Your task to perform on an android device: check the backup settings in the google photos Image 0: 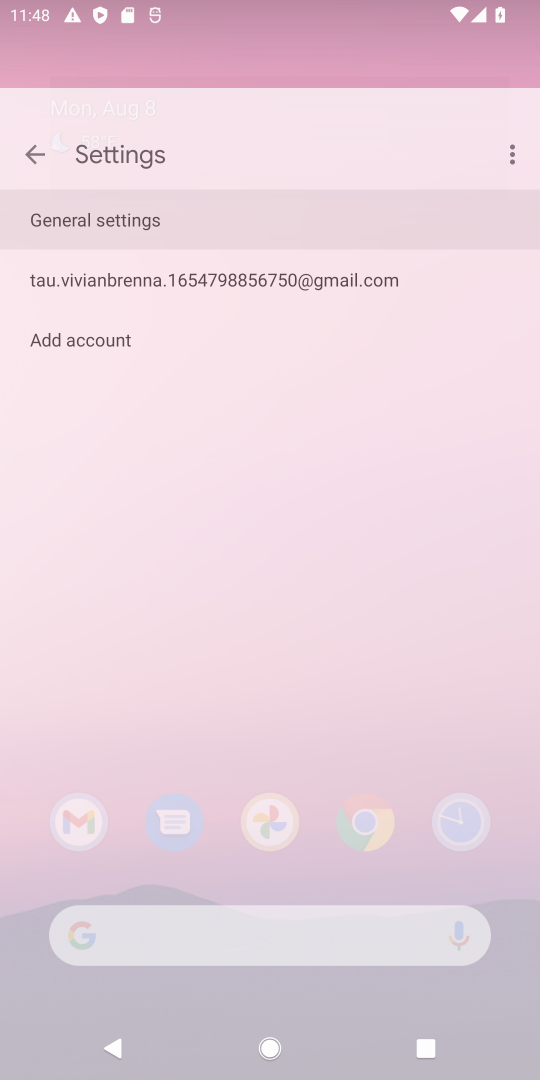
Step 0: press home button
Your task to perform on an android device: check the backup settings in the google photos Image 1: 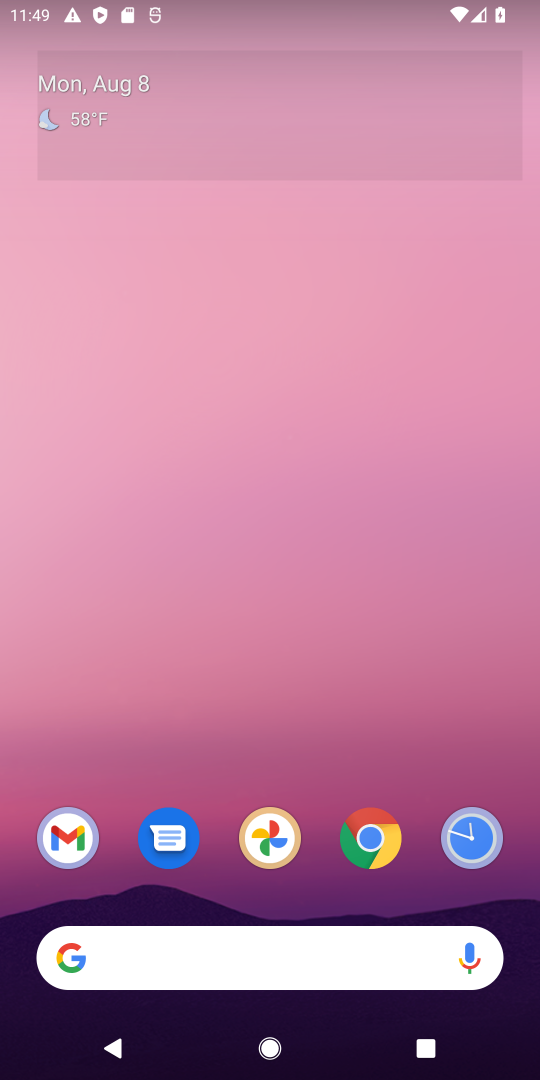
Step 1: click (278, 838)
Your task to perform on an android device: check the backup settings in the google photos Image 2: 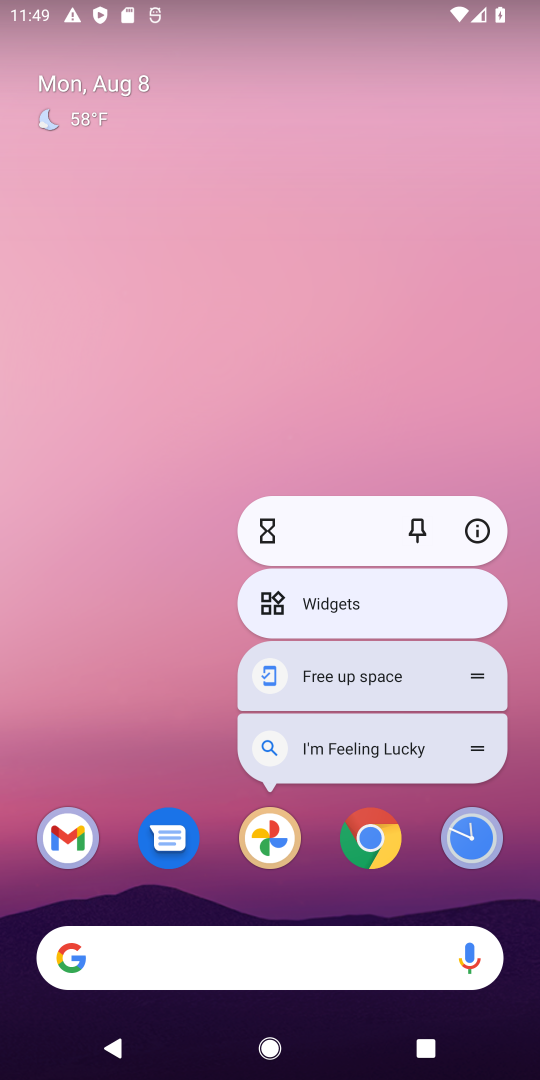
Step 2: click (278, 838)
Your task to perform on an android device: check the backup settings in the google photos Image 3: 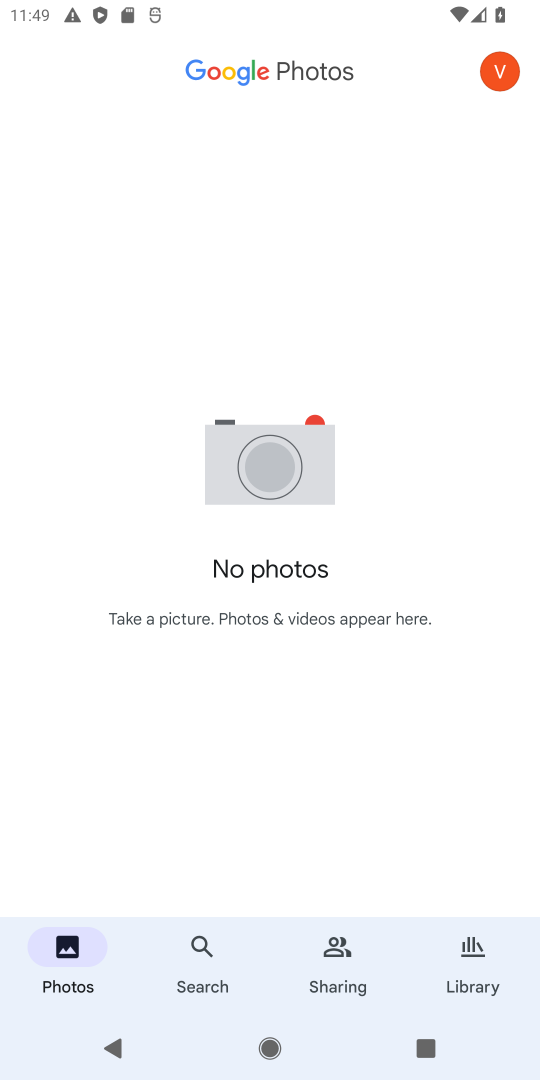
Step 3: click (506, 57)
Your task to perform on an android device: check the backup settings in the google photos Image 4: 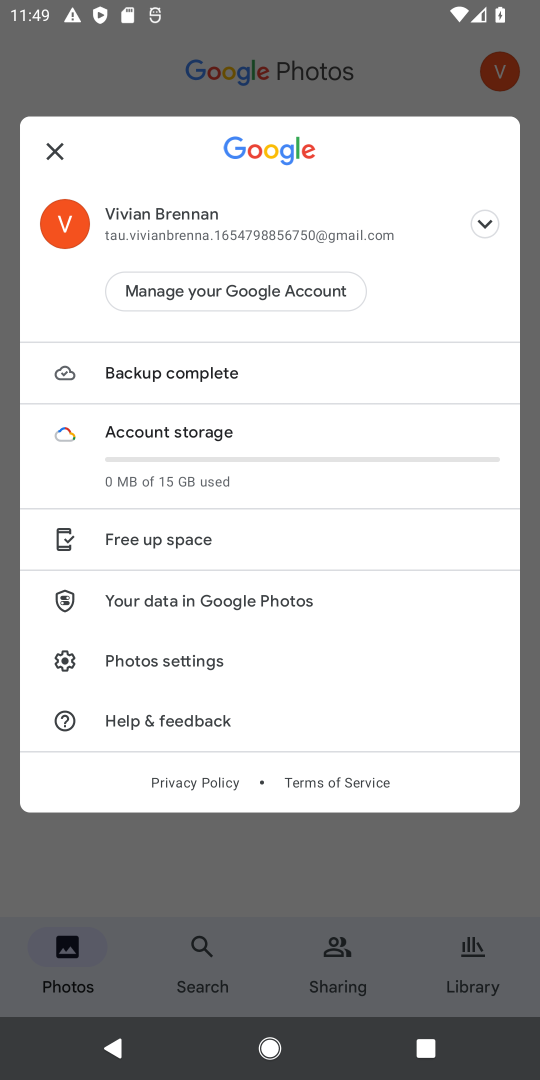
Step 4: click (143, 663)
Your task to perform on an android device: check the backup settings in the google photos Image 5: 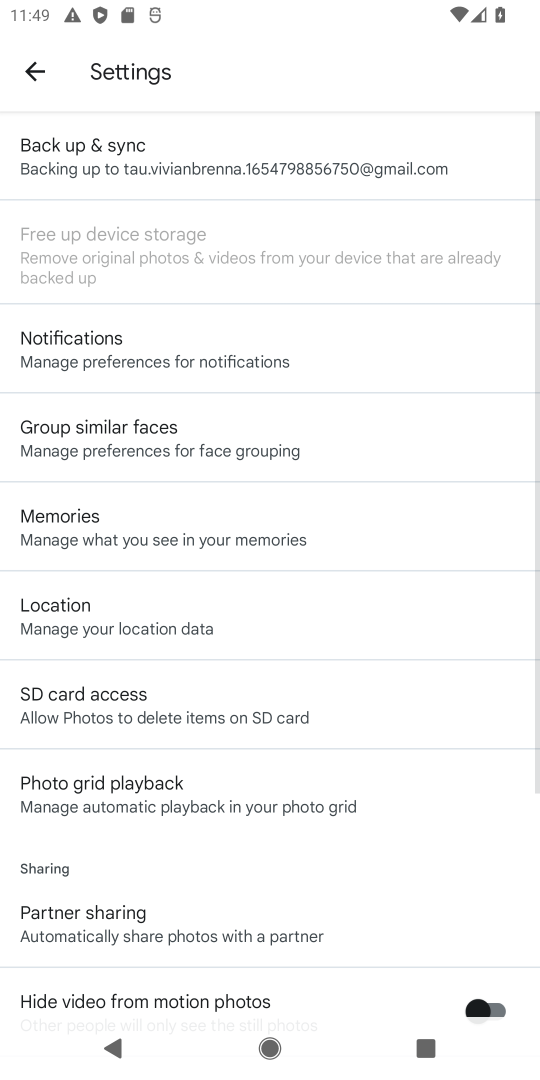
Step 5: click (96, 149)
Your task to perform on an android device: check the backup settings in the google photos Image 6: 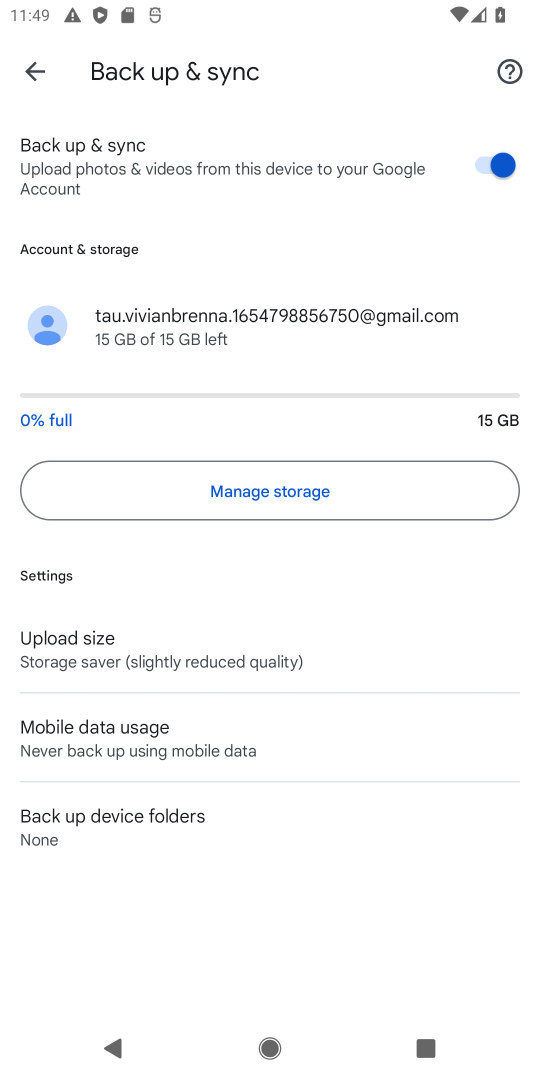
Step 6: task complete